Your task to perform on an android device: Go to battery settings Image 0: 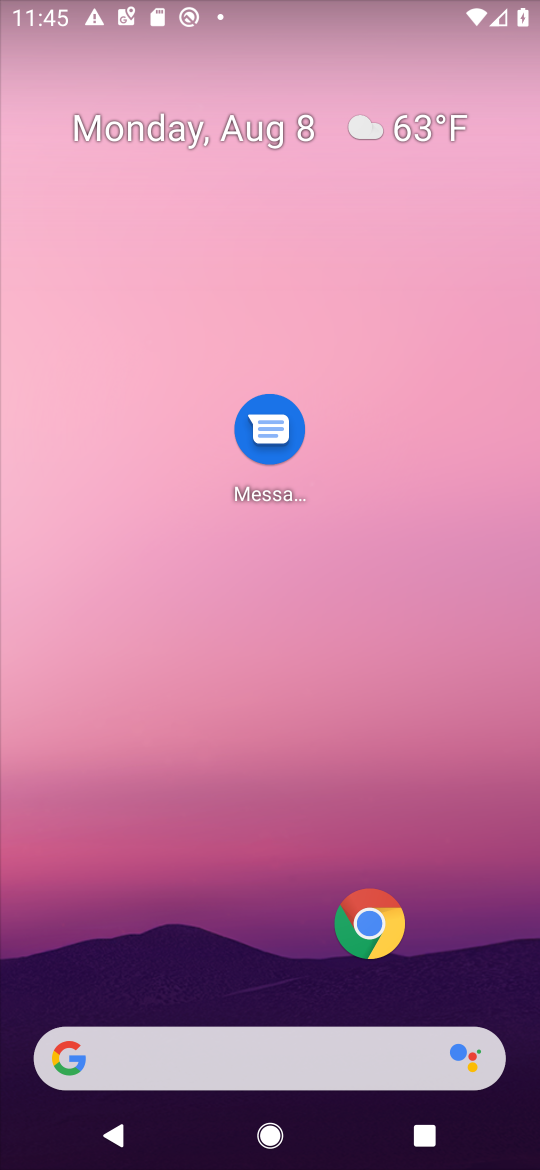
Step 0: drag from (23, 1121) to (164, 390)
Your task to perform on an android device: Go to battery settings Image 1: 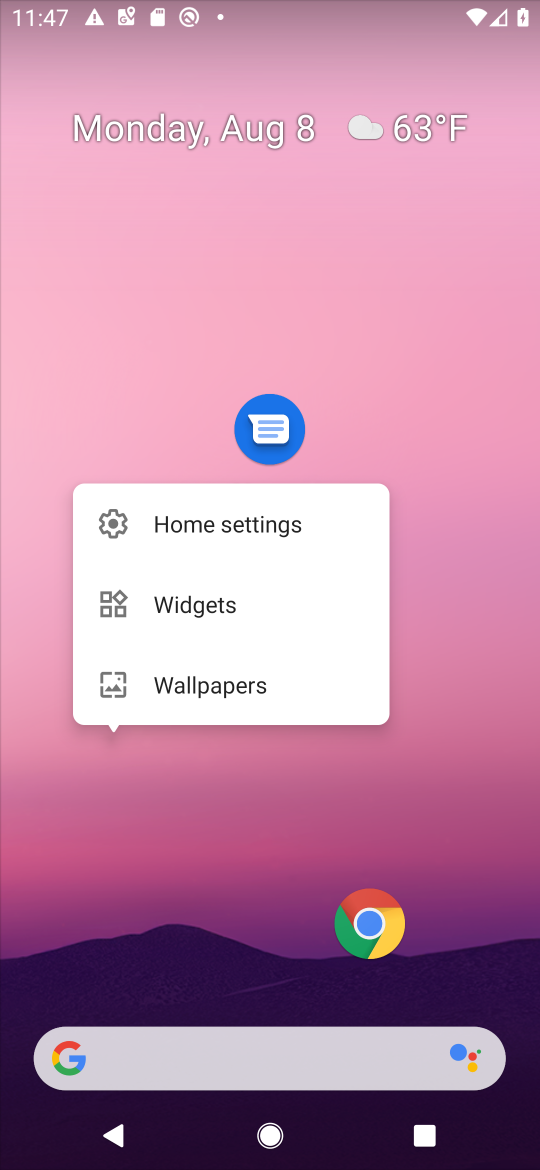
Step 1: task complete